Your task to perform on an android device: open chrome and create a bookmark for the current page Image 0: 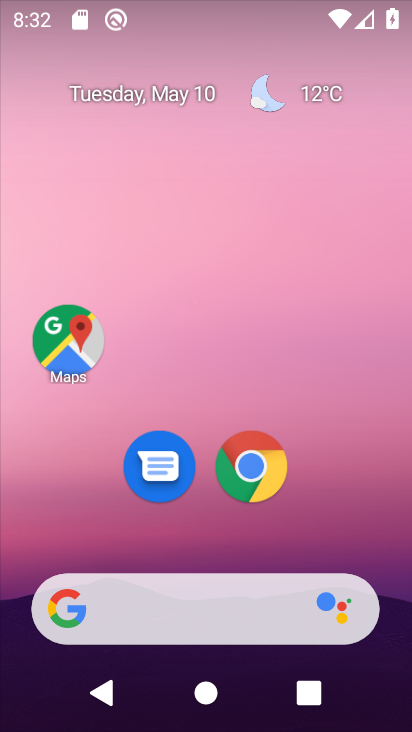
Step 0: click (248, 462)
Your task to perform on an android device: open chrome and create a bookmark for the current page Image 1: 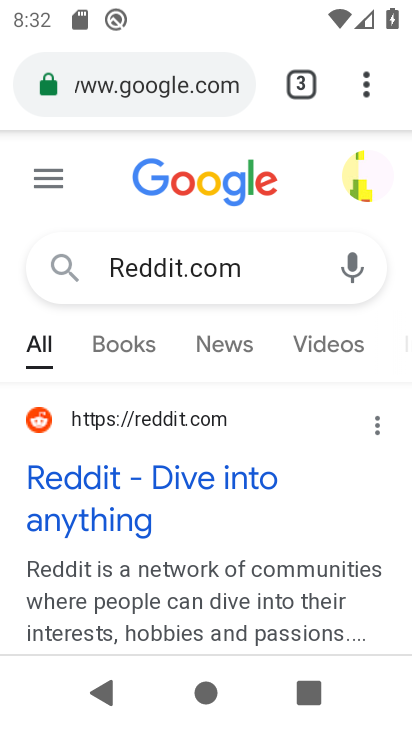
Step 1: click (366, 89)
Your task to perform on an android device: open chrome and create a bookmark for the current page Image 2: 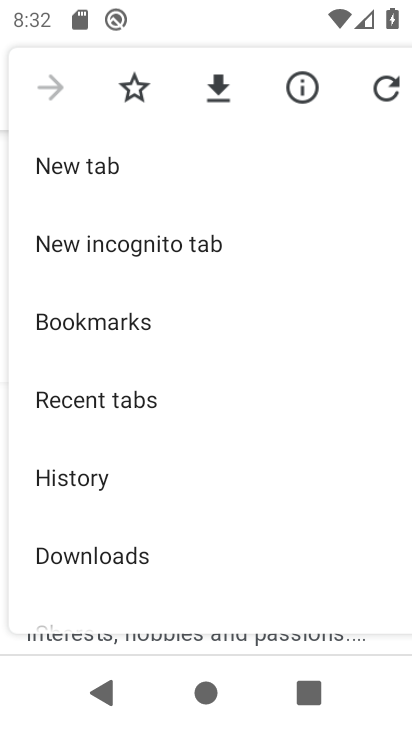
Step 2: click (125, 82)
Your task to perform on an android device: open chrome and create a bookmark for the current page Image 3: 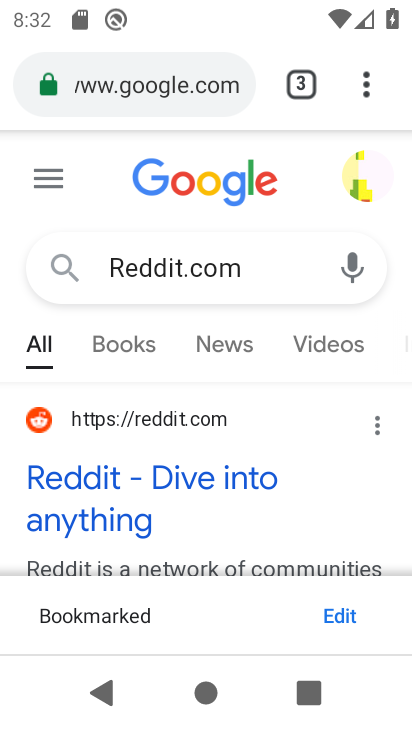
Step 3: task complete